Your task to perform on an android device: choose inbox layout in the gmail app Image 0: 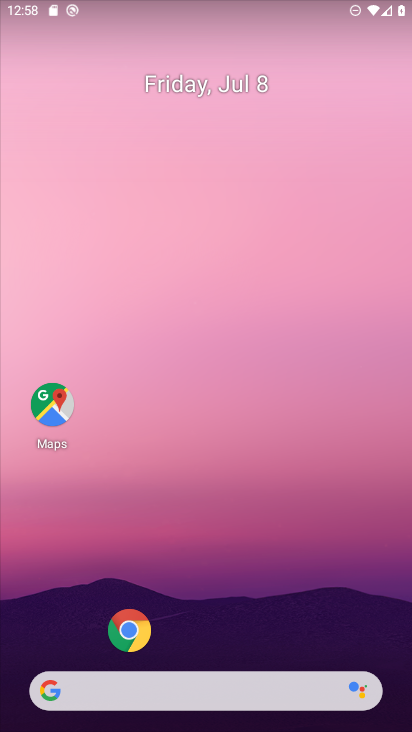
Step 0: drag from (145, 712) to (233, 115)
Your task to perform on an android device: choose inbox layout in the gmail app Image 1: 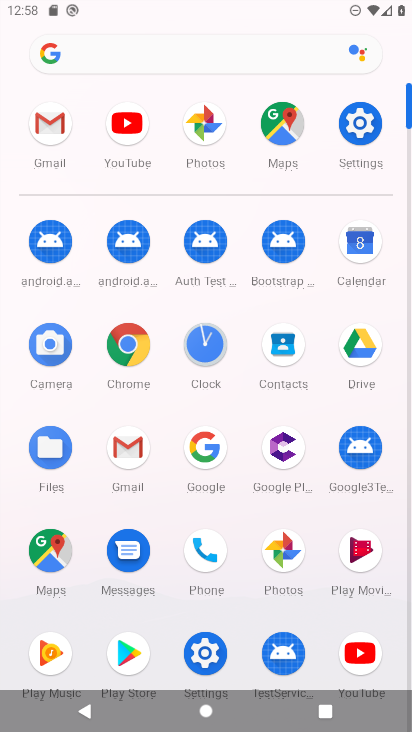
Step 1: click (142, 461)
Your task to perform on an android device: choose inbox layout in the gmail app Image 2: 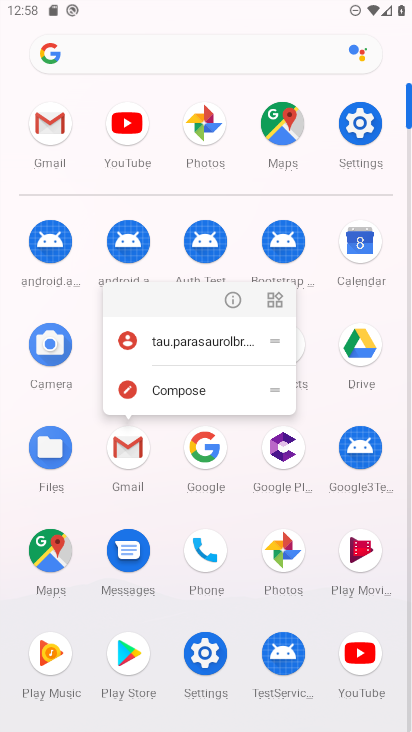
Step 2: drag from (175, 363) to (215, 172)
Your task to perform on an android device: choose inbox layout in the gmail app Image 3: 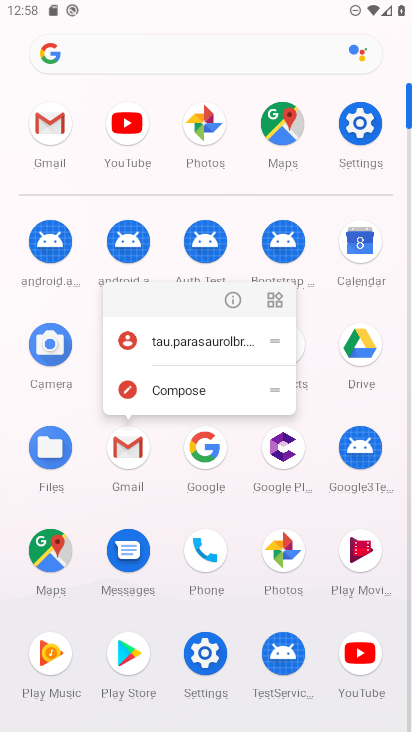
Step 3: click (377, 582)
Your task to perform on an android device: choose inbox layout in the gmail app Image 4: 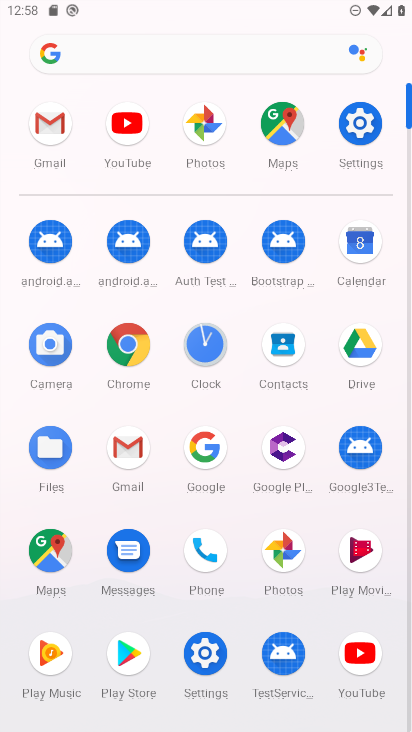
Step 4: click (156, 446)
Your task to perform on an android device: choose inbox layout in the gmail app Image 5: 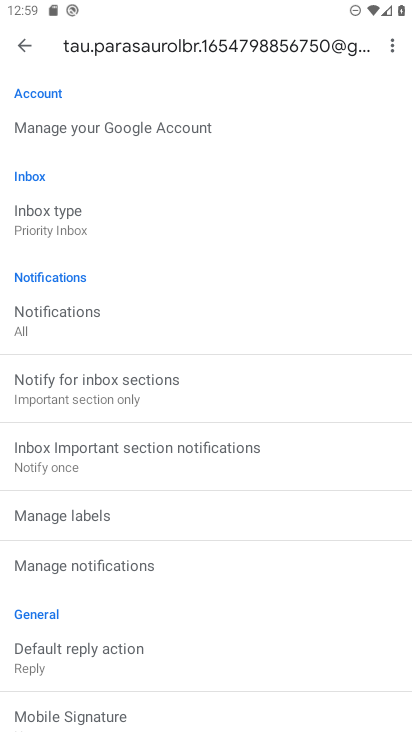
Step 5: drag from (147, 622) to (188, 722)
Your task to perform on an android device: choose inbox layout in the gmail app Image 6: 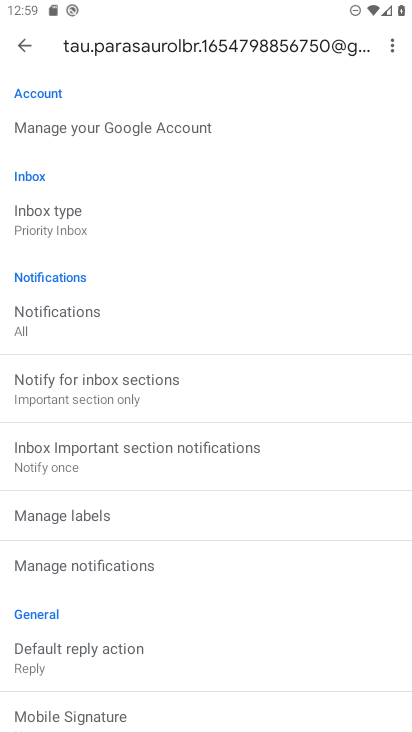
Step 6: click (172, 232)
Your task to perform on an android device: choose inbox layout in the gmail app Image 7: 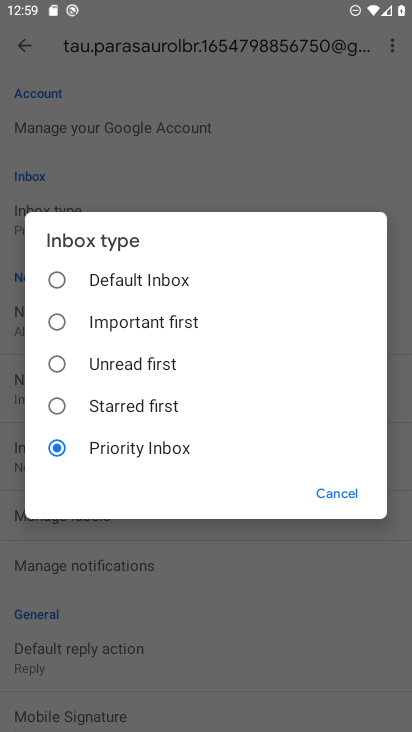
Step 7: click (155, 275)
Your task to perform on an android device: choose inbox layout in the gmail app Image 8: 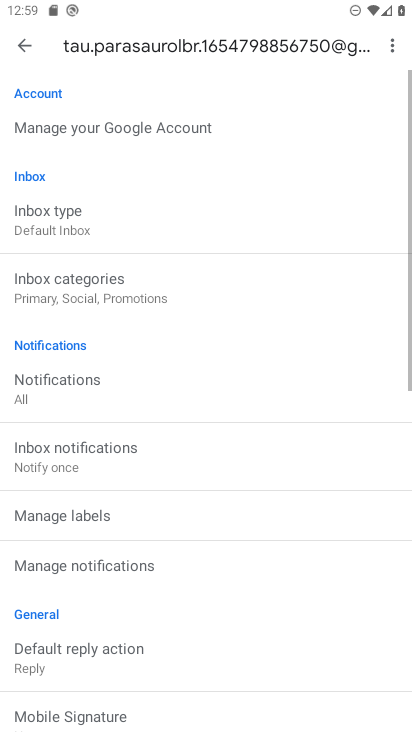
Step 8: task complete